Your task to perform on an android device: Clear all items from cart on ebay.com. Image 0: 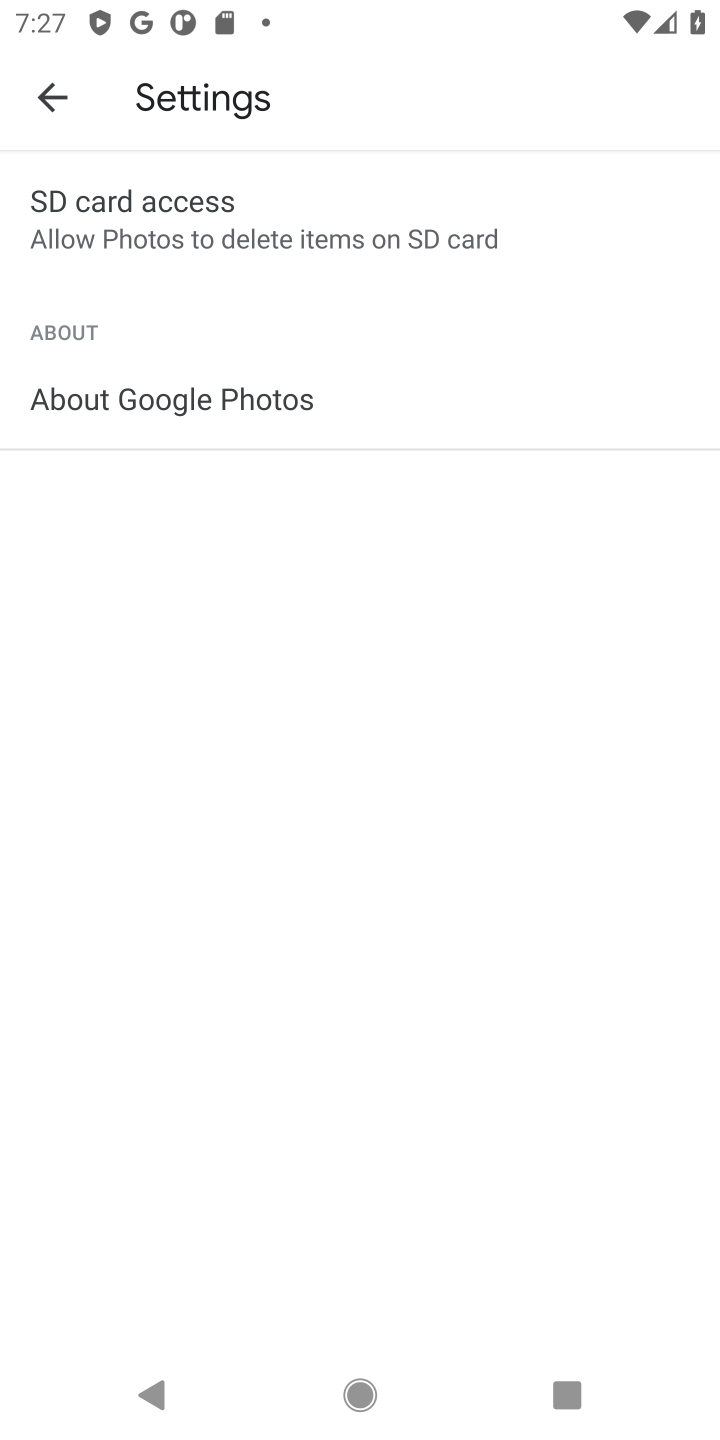
Step 0: press home button
Your task to perform on an android device: Clear all items from cart on ebay.com. Image 1: 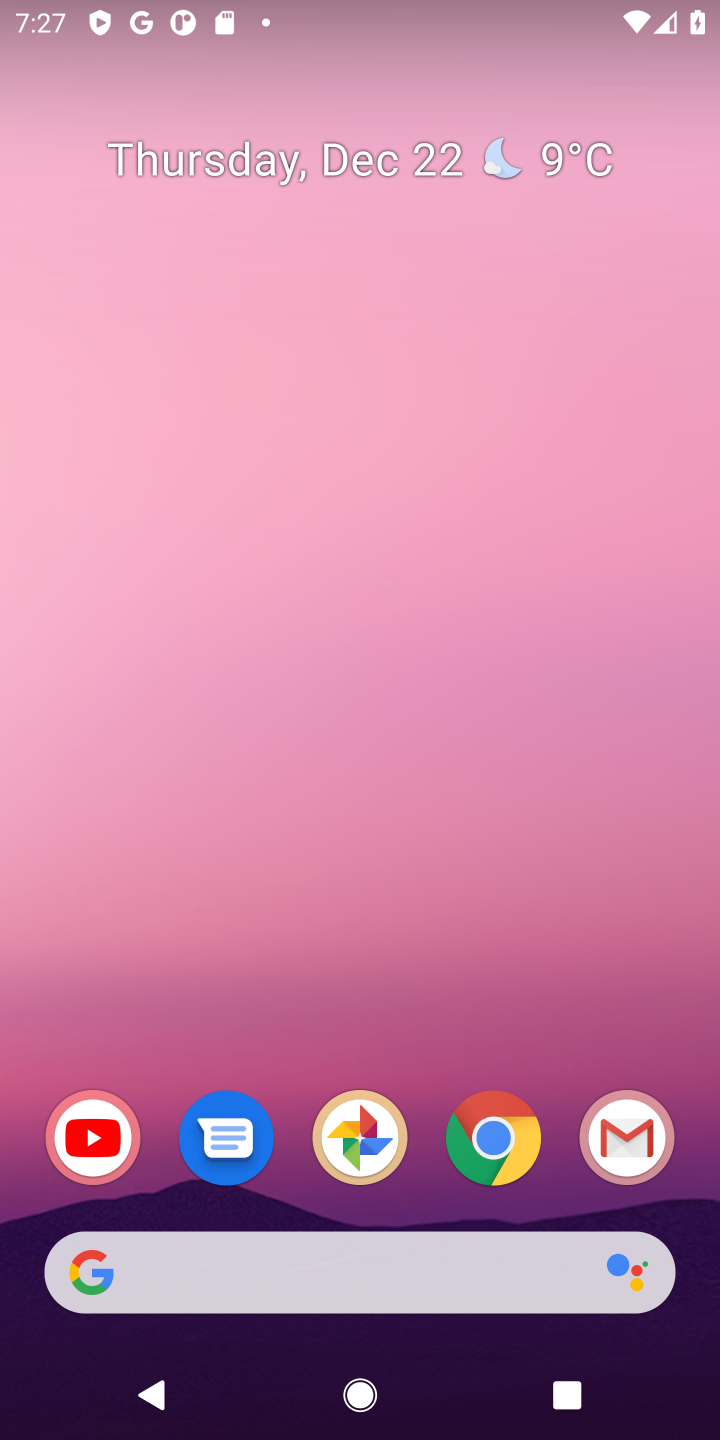
Step 1: click (483, 1132)
Your task to perform on an android device: Clear all items from cart on ebay.com. Image 2: 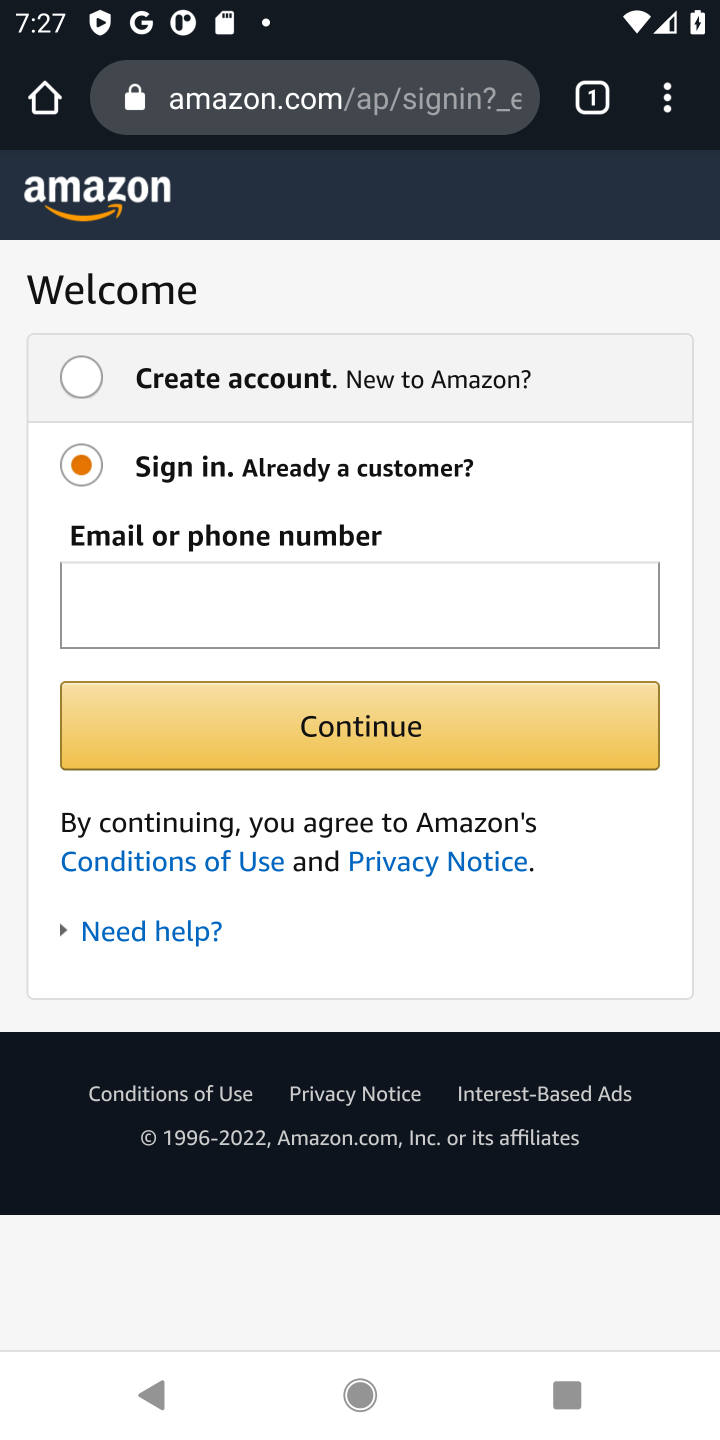
Step 2: click (272, 85)
Your task to perform on an android device: Clear all items from cart on ebay.com. Image 3: 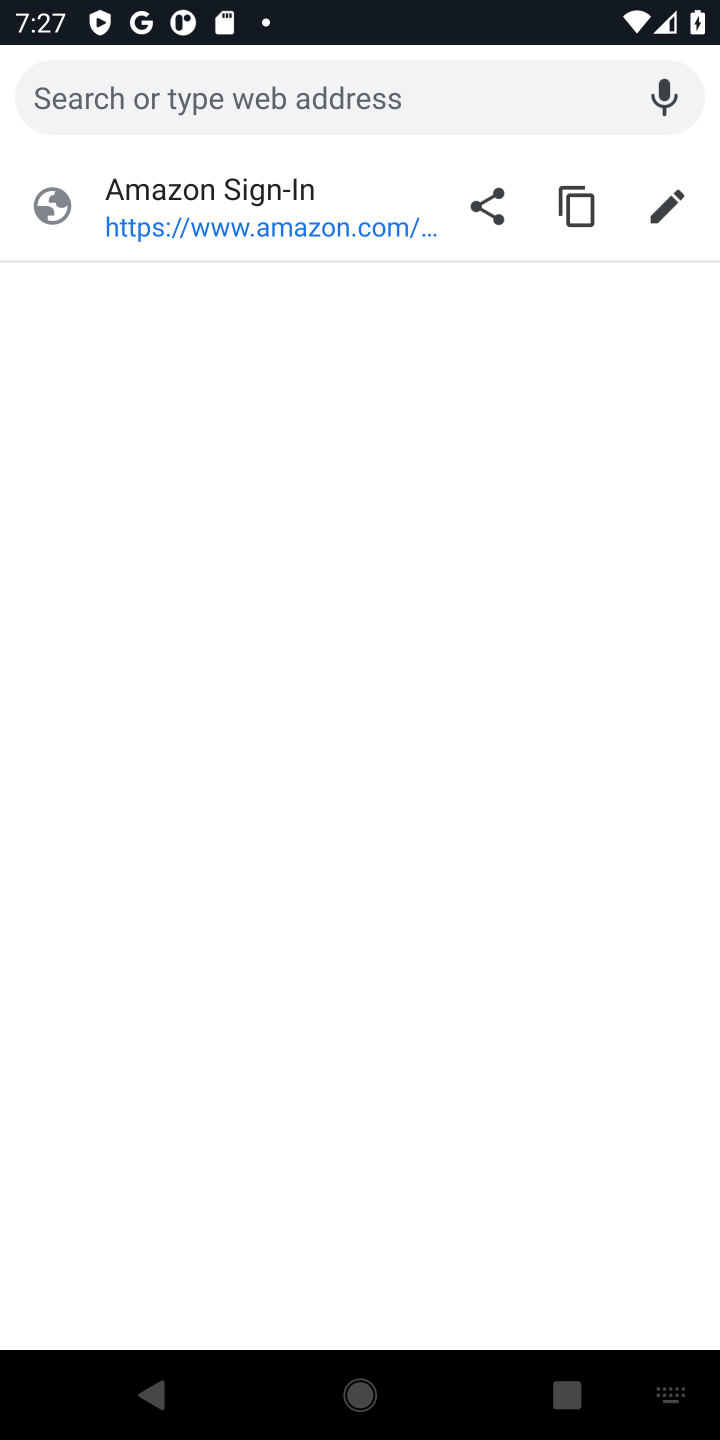
Step 3: type "ebay.com"
Your task to perform on an android device: Clear all items from cart on ebay.com. Image 4: 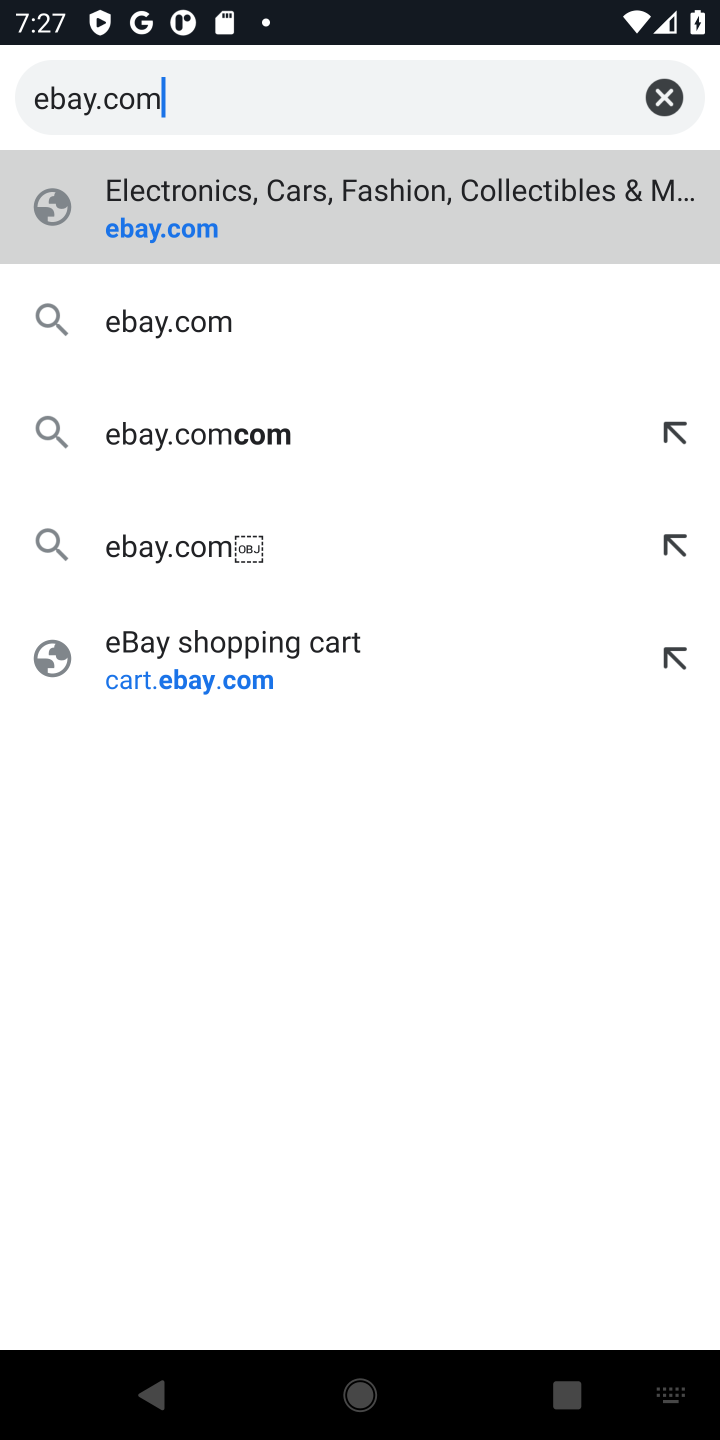
Step 4: click (196, 325)
Your task to perform on an android device: Clear all items from cart on ebay.com. Image 5: 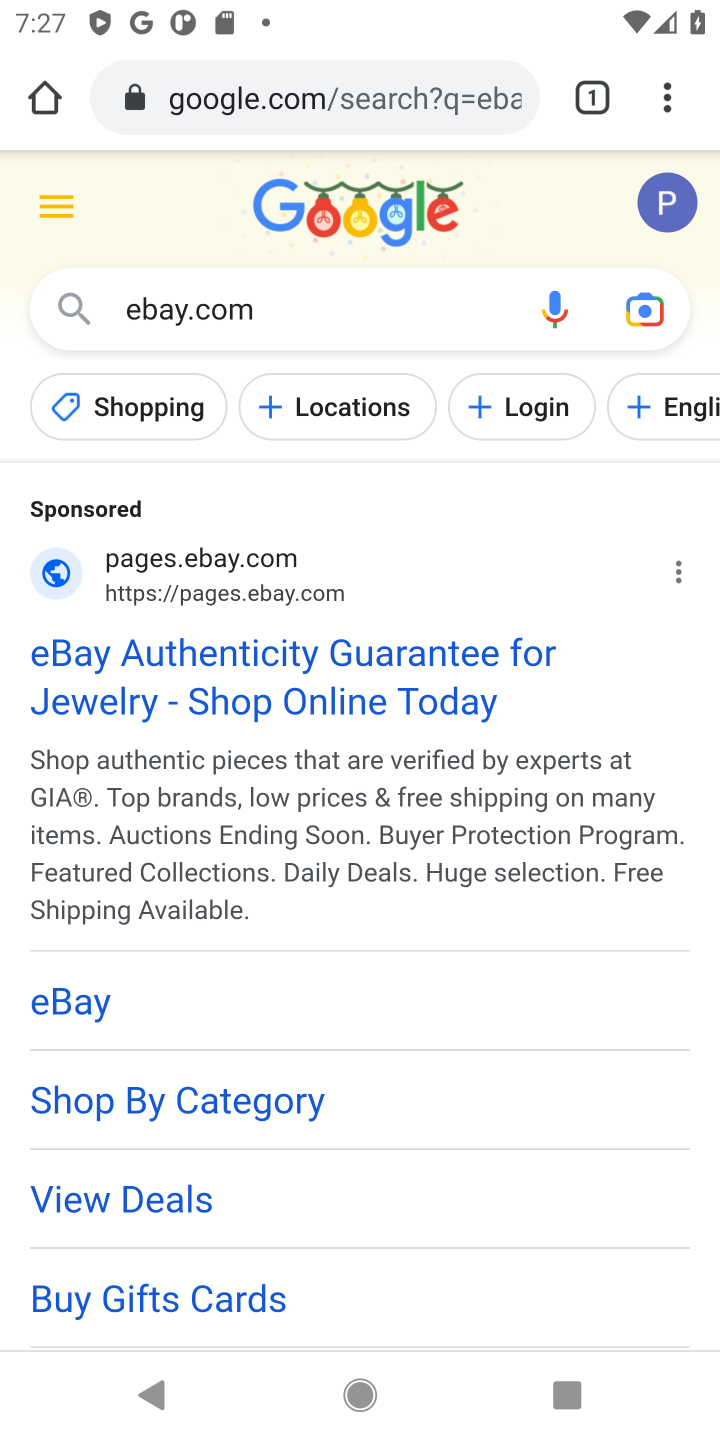
Step 5: click (247, 585)
Your task to perform on an android device: Clear all items from cart on ebay.com. Image 6: 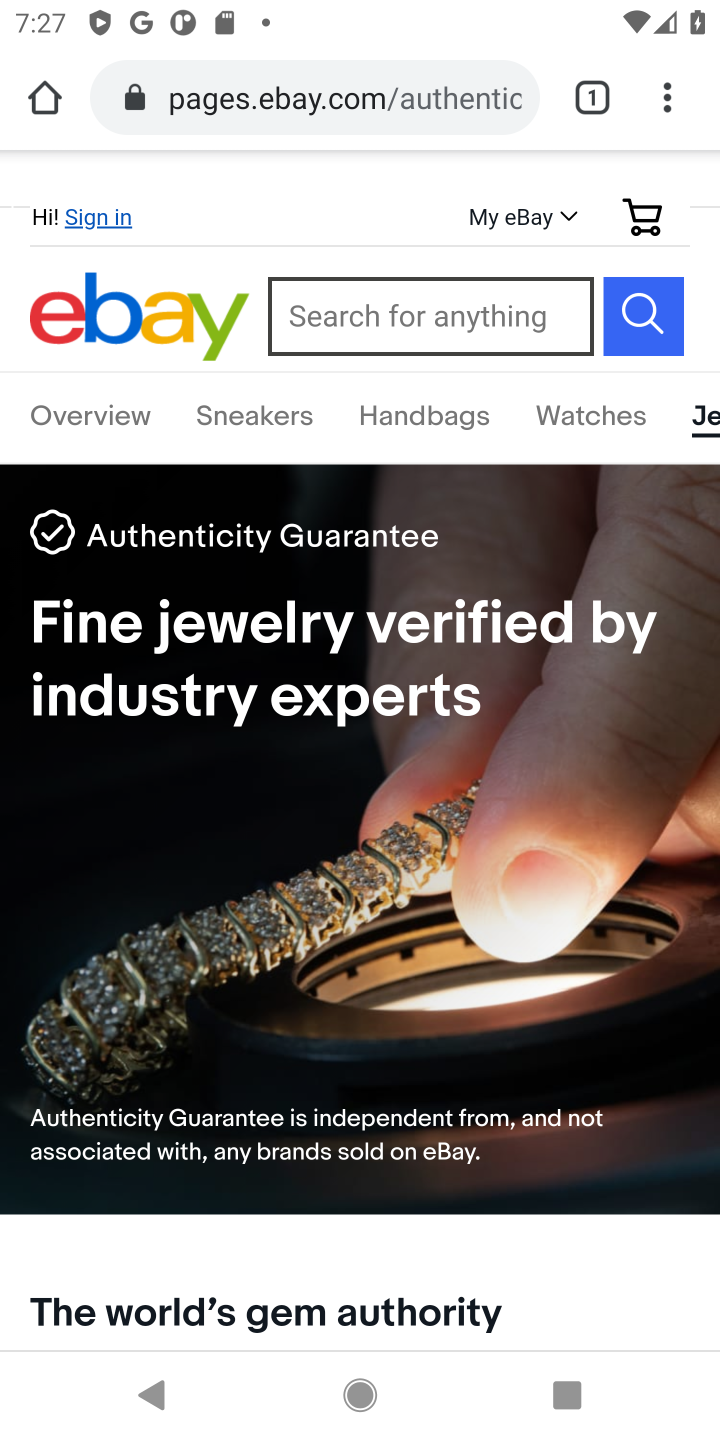
Step 6: click (648, 220)
Your task to perform on an android device: Clear all items from cart on ebay.com. Image 7: 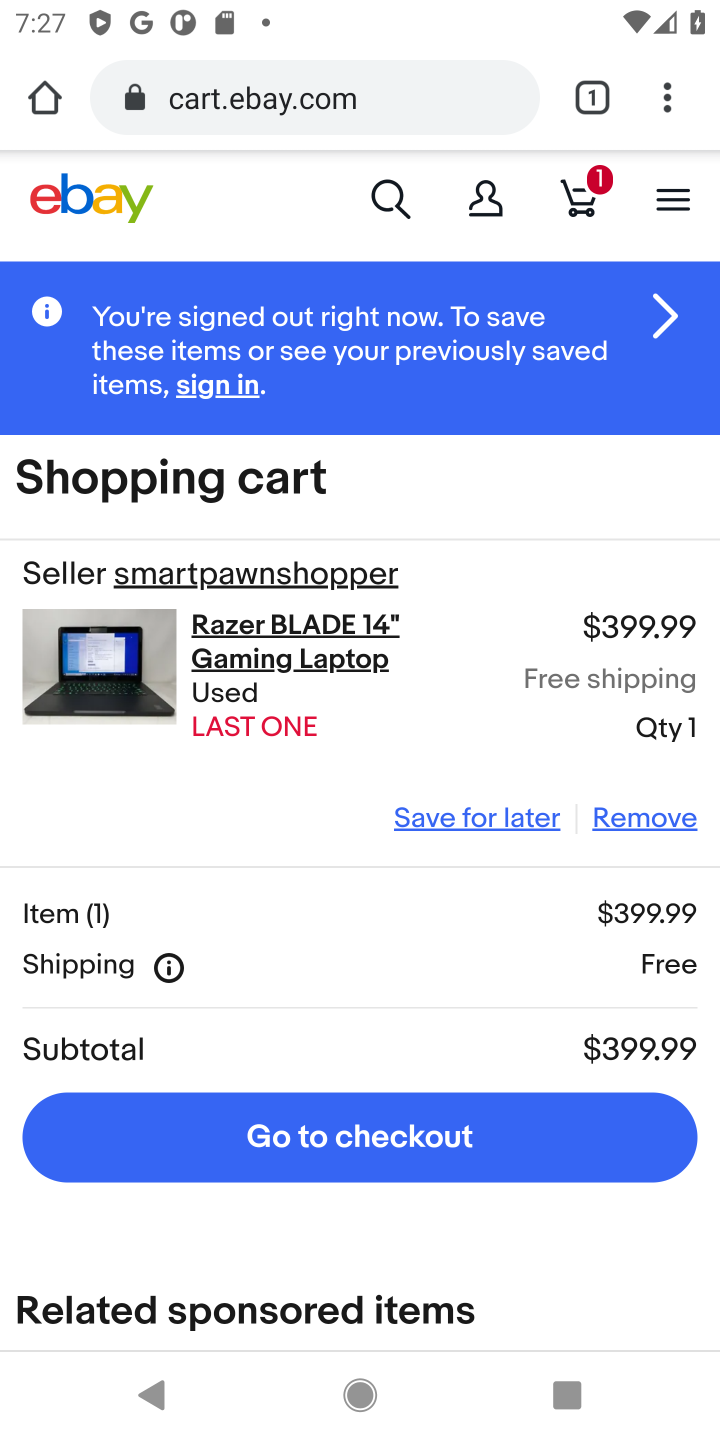
Step 7: click (633, 821)
Your task to perform on an android device: Clear all items from cart on ebay.com. Image 8: 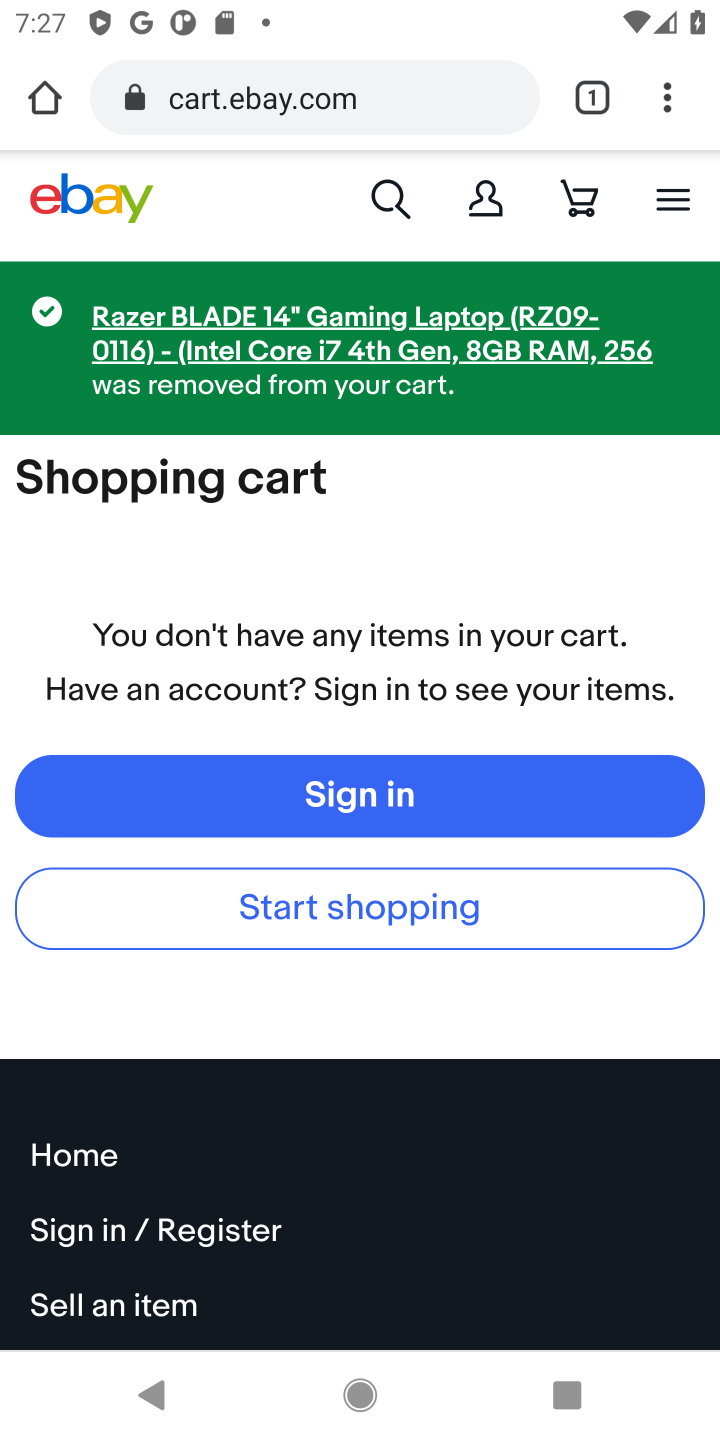
Step 8: task complete